Your task to perform on an android device: Open settings Image 0: 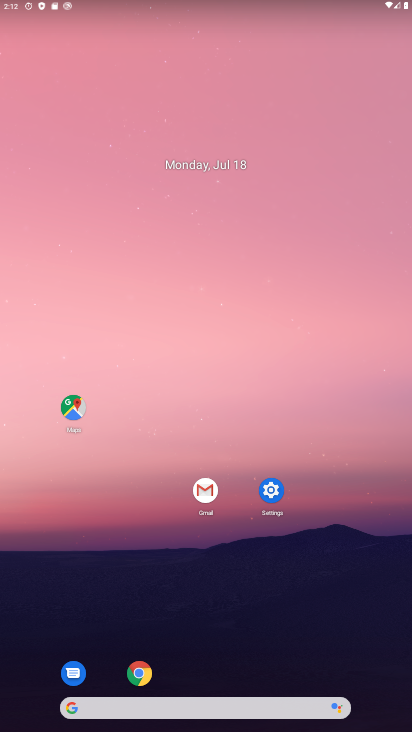
Step 0: click (266, 500)
Your task to perform on an android device: Open settings Image 1: 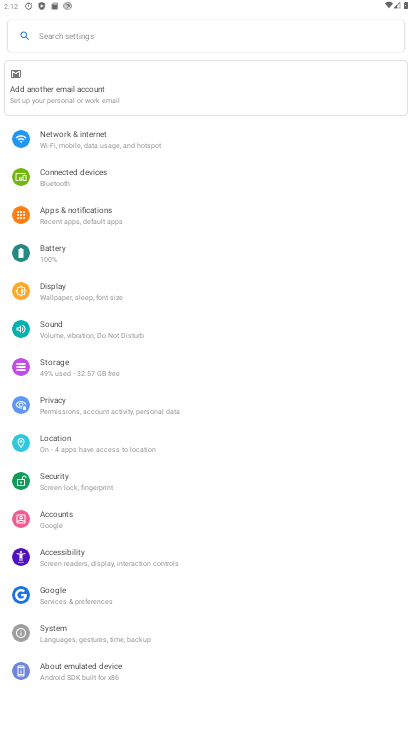
Step 1: task complete